Your task to perform on an android device: make emails show in primary in the gmail app Image 0: 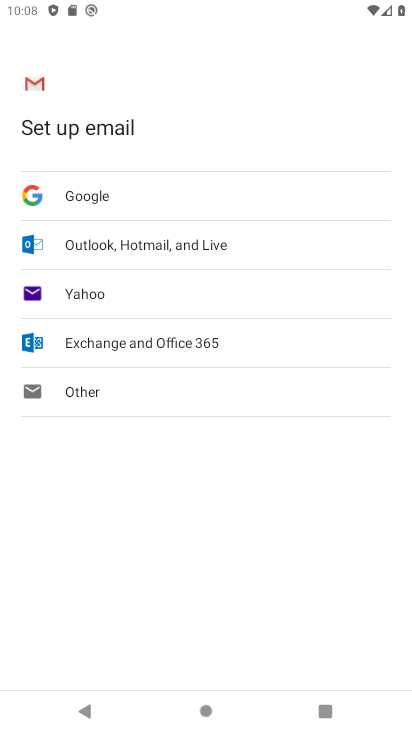
Step 0: press home button
Your task to perform on an android device: make emails show in primary in the gmail app Image 1: 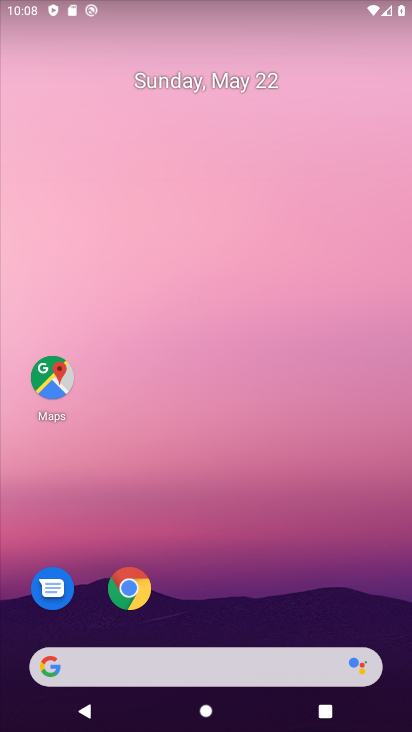
Step 1: drag from (225, 727) to (173, 108)
Your task to perform on an android device: make emails show in primary in the gmail app Image 2: 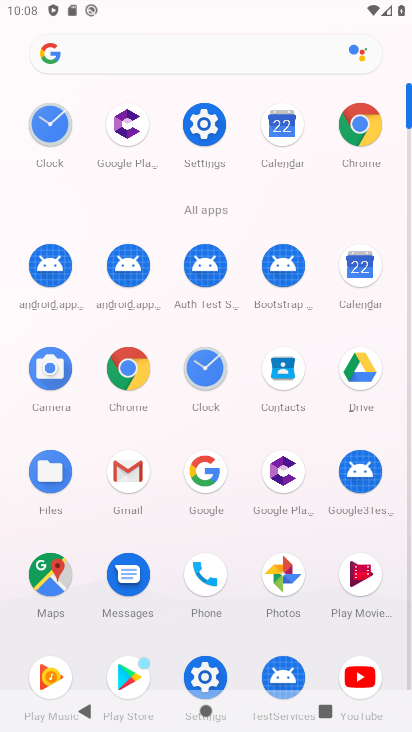
Step 2: click (126, 467)
Your task to perform on an android device: make emails show in primary in the gmail app Image 3: 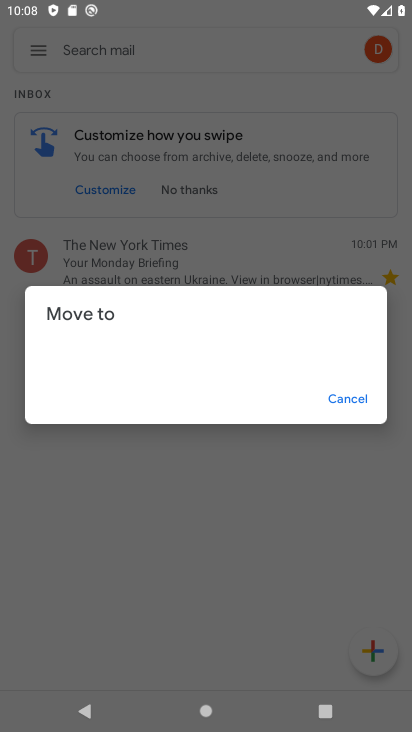
Step 3: click (356, 397)
Your task to perform on an android device: make emails show in primary in the gmail app Image 4: 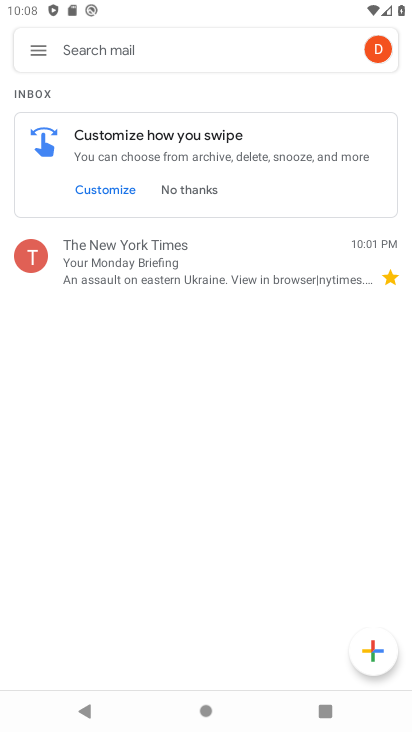
Step 4: click (39, 50)
Your task to perform on an android device: make emails show in primary in the gmail app Image 5: 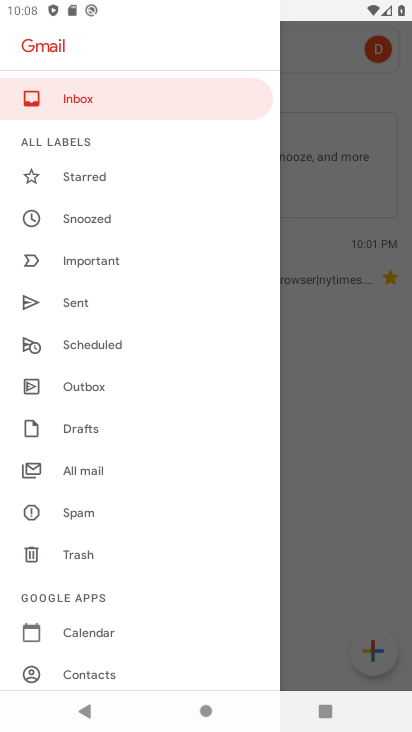
Step 5: drag from (108, 645) to (120, 269)
Your task to perform on an android device: make emails show in primary in the gmail app Image 6: 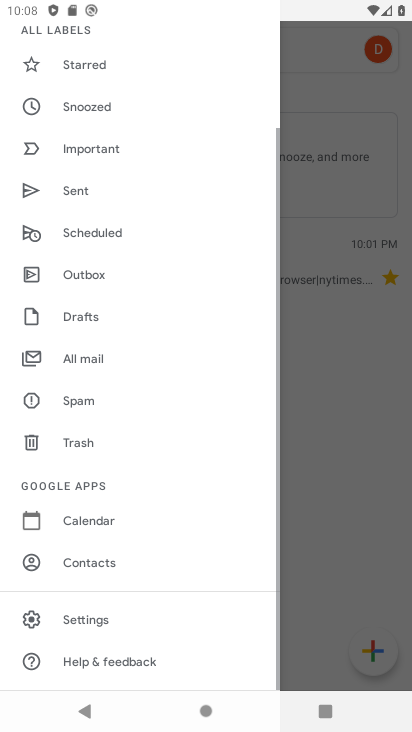
Step 6: click (94, 619)
Your task to perform on an android device: make emails show in primary in the gmail app Image 7: 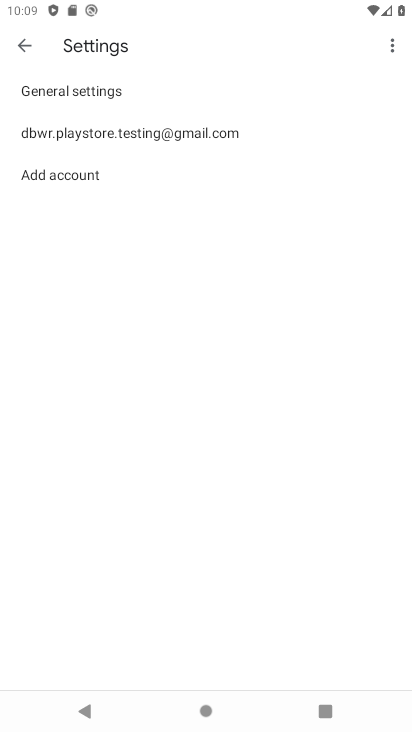
Step 7: click (86, 137)
Your task to perform on an android device: make emails show in primary in the gmail app Image 8: 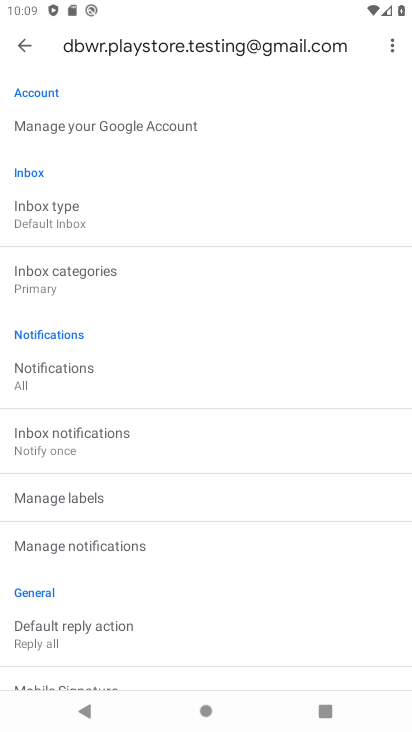
Step 8: click (46, 217)
Your task to perform on an android device: make emails show in primary in the gmail app Image 9: 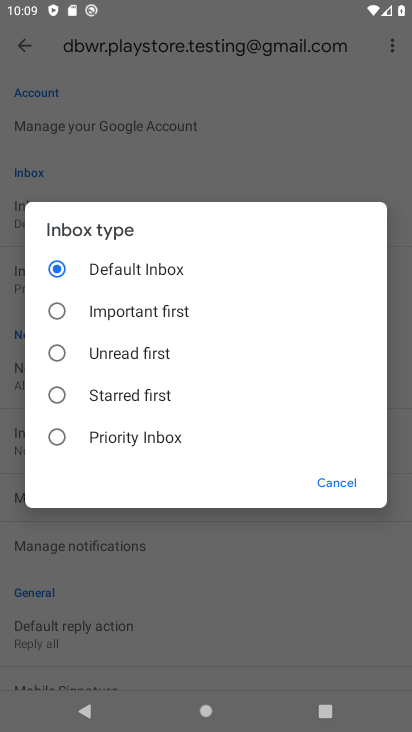
Step 9: click (342, 485)
Your task to perform on an android device: make emails show in primary in the gmail app Image 10: 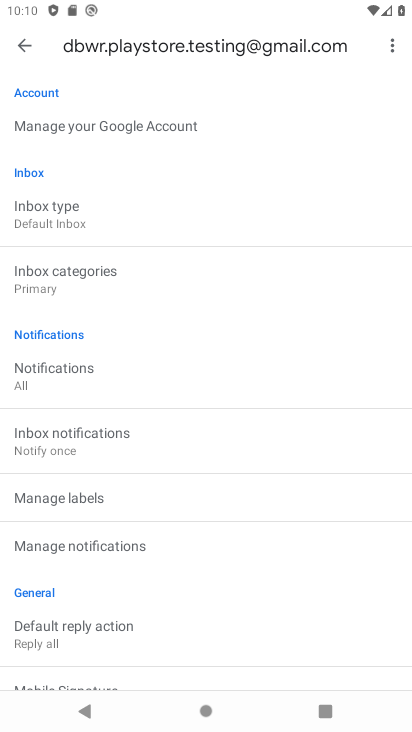
Step 10: task complete